Your task to perform on an android device: What is the recent news? Image 0: 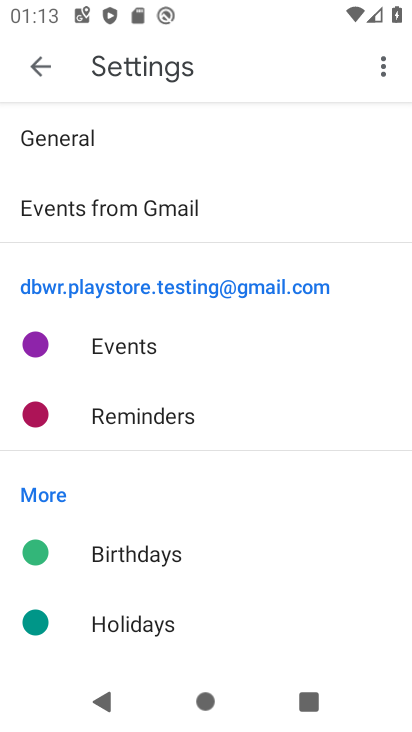
Step 0: press home button
Your task to perform on an android device: What is the recent news? Image 1: 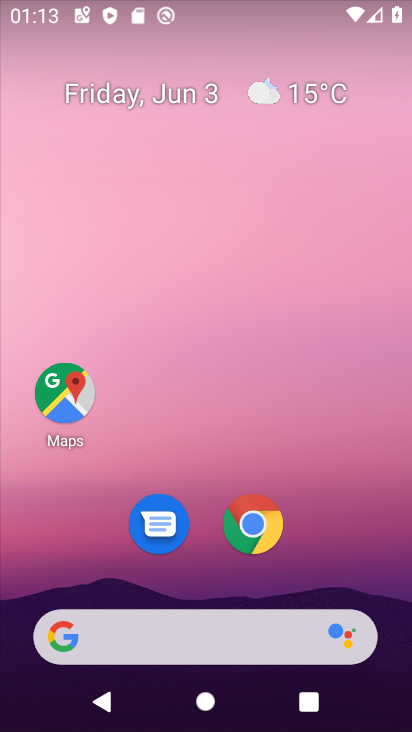
Step 1: click (167, 650)
Your task to perform on an android device: What is the recent news? Image 2: 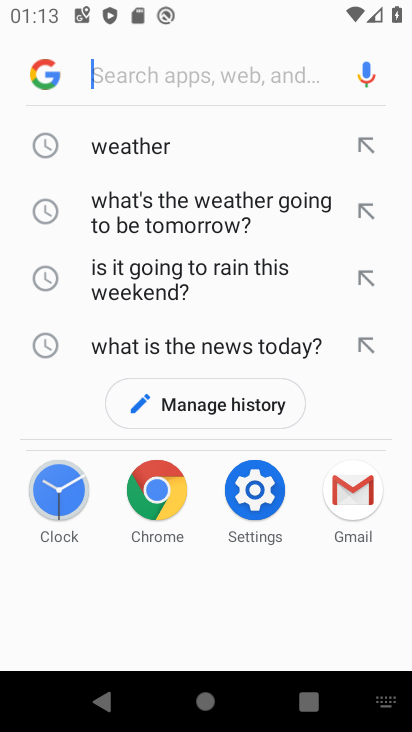
Step 2: type "news"
Your task to perform on an android device: What is the recent news? Image 3: 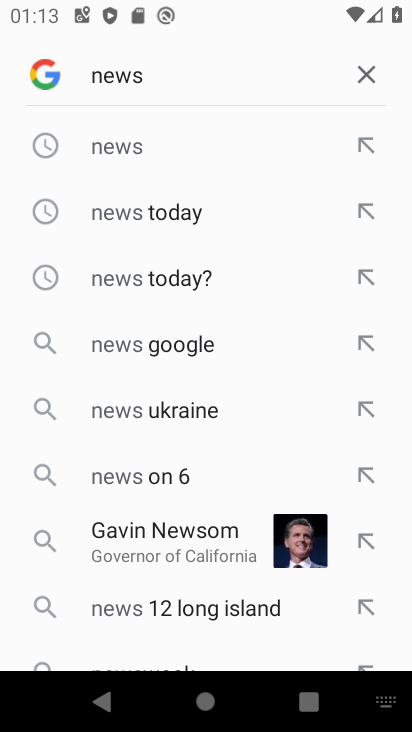
Step 3: click (133, 156)
Your task to perform on an android device: What is the recent news? Image 4: 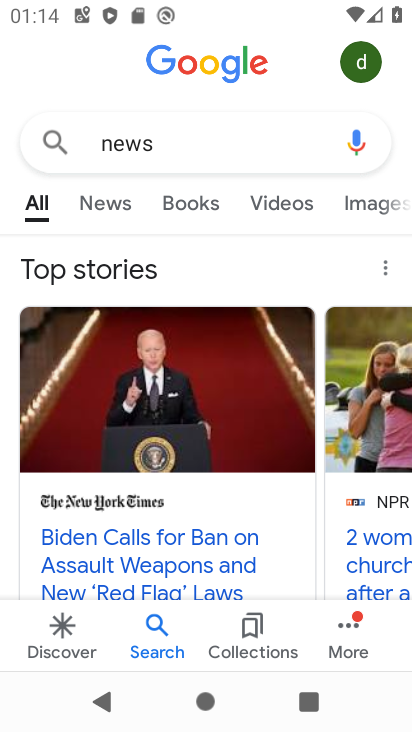
Step 4: click (104, 190)
Your task to perform on an android device: What is the recent news? Image 5: 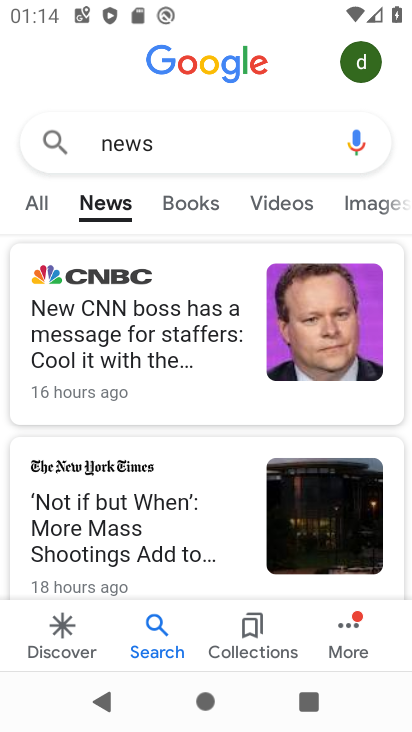
Step 5: click (256, 566)
Your task to perform on an android device: What is the recent news? Image 6: 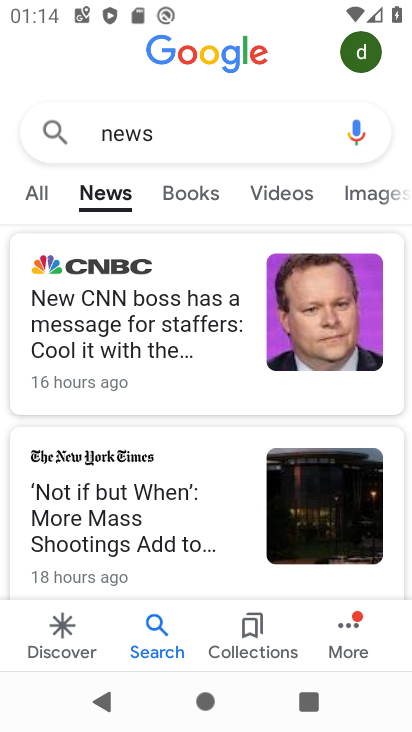
Step 6: drag from (223, 354) to (216, 161)
Your task to perform on an android device: What is the recent news? Image 7: 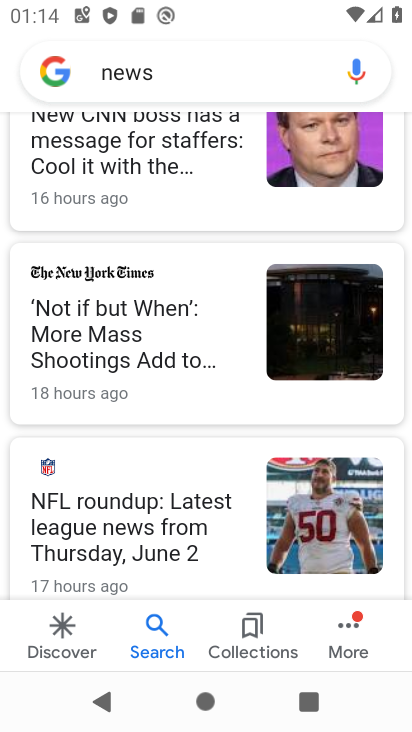
Step 7: drag from (181, 365) to (196, 151)
Your task to perform on an android device: What is the recent news? Image 8: 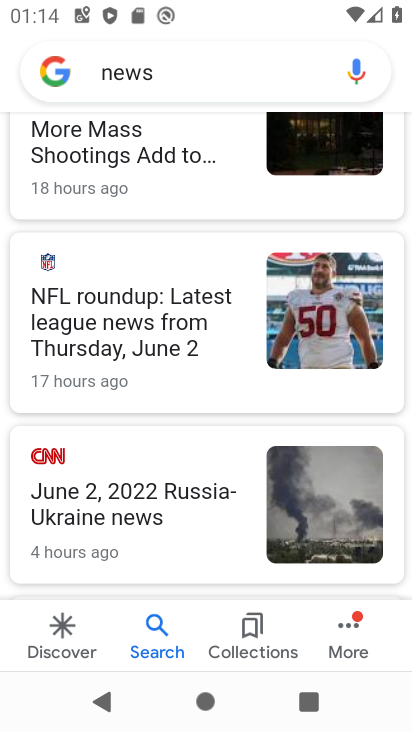
Step 8: drag from (163, 513) to (190, 204)
Your task to perform on an android device: What is the recent news? Image 9: 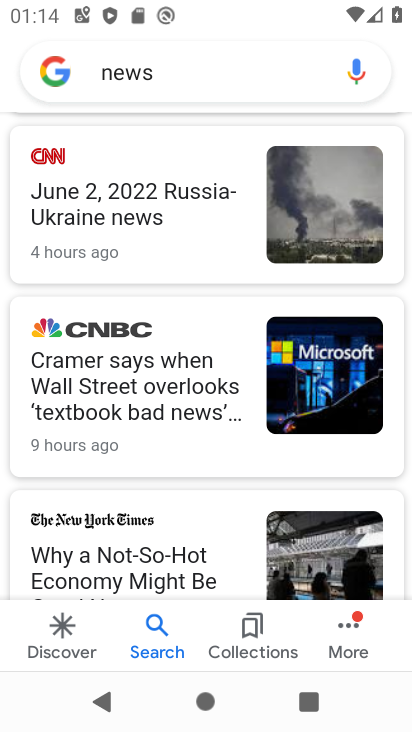
Step 9: click (190, 204)
Your task to perform on an android device: What is the recent news? Image 10: 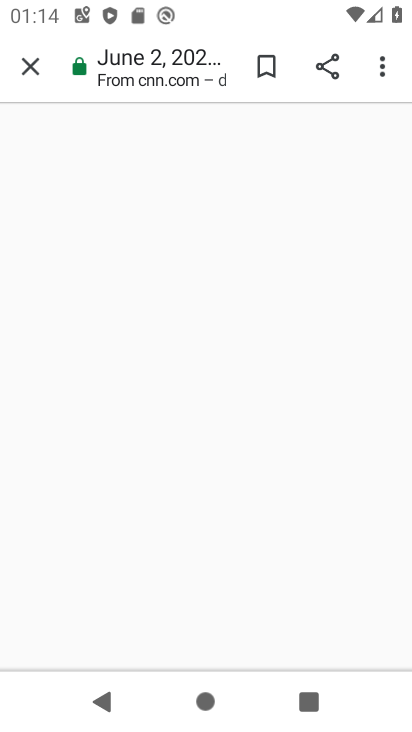
Step 10: click (29, 68)
Your task to perform on an android device: What is the recent news? Image 11: 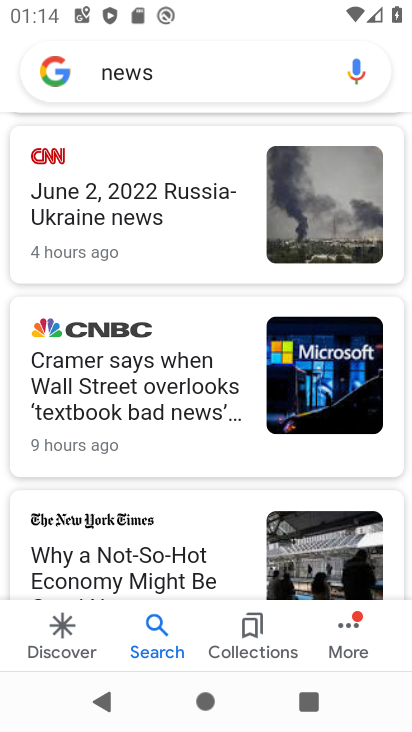
Step 11: task complete